Your task to perform on an android device: Go to wifi settings Image 0: 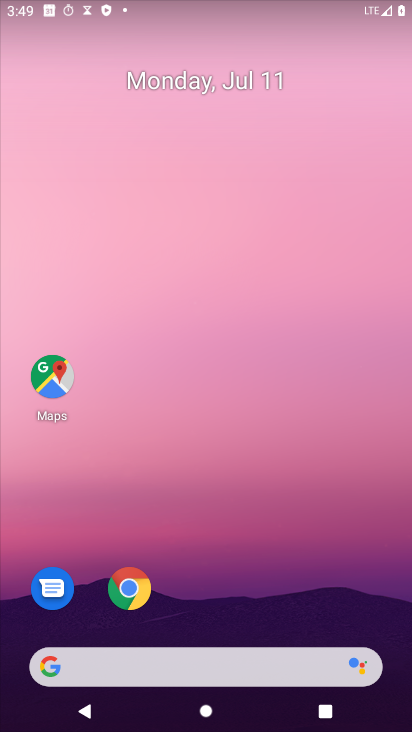
Step 0: drag from (252, 201) to (285, 7)
Your task to perform on an android device: Go to wifi settings Image 1: 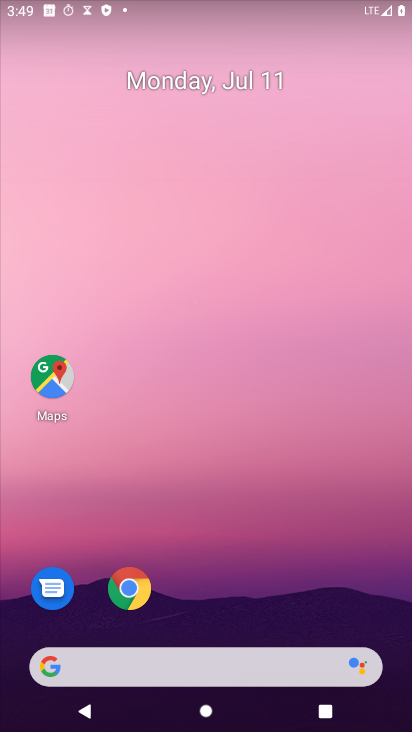
Step 1: drag from (243, 567) to (200, 11)
Your task to perform on an android device: Go to wifi settings Image 2: 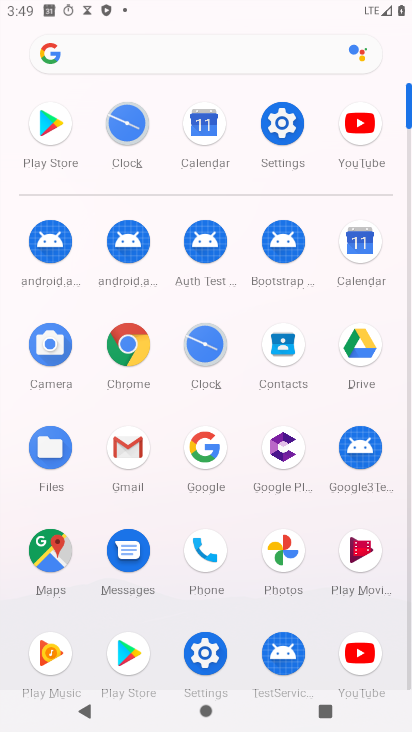
Step 2: click (280, 114)
Your task to perform on an android device: Go to wifi settings Image 3: 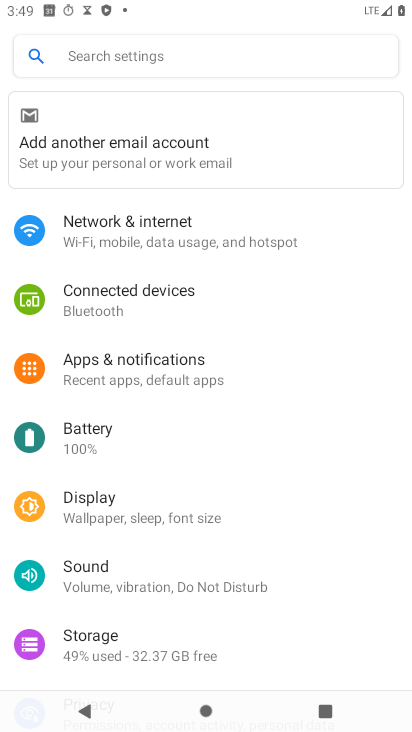
Step 3: click (198, 230)
Your task to perform on an android device: Go to wifi settings Image 4: 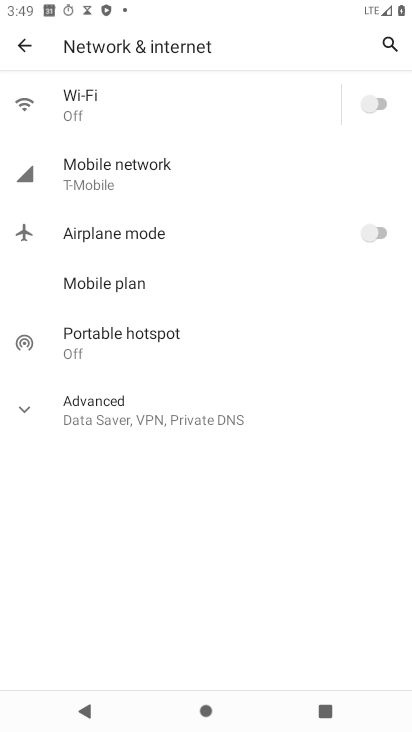
Step 4: click (41, 93)
Your task to perform on an android device: Go to wifi settings Image 5: 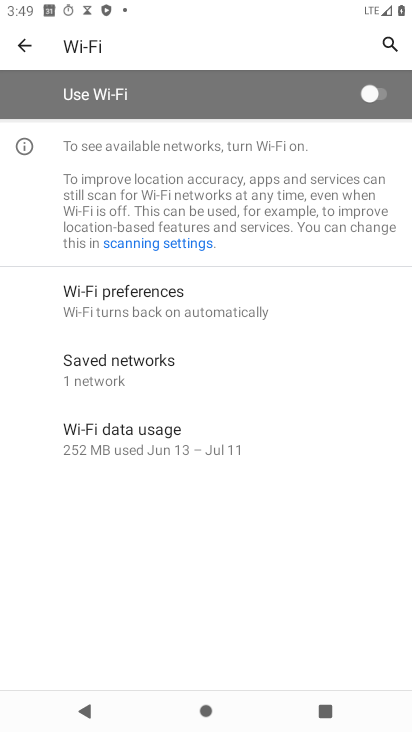
Step 5: task complete